Your task to perform on an android device: check storage Image 0: 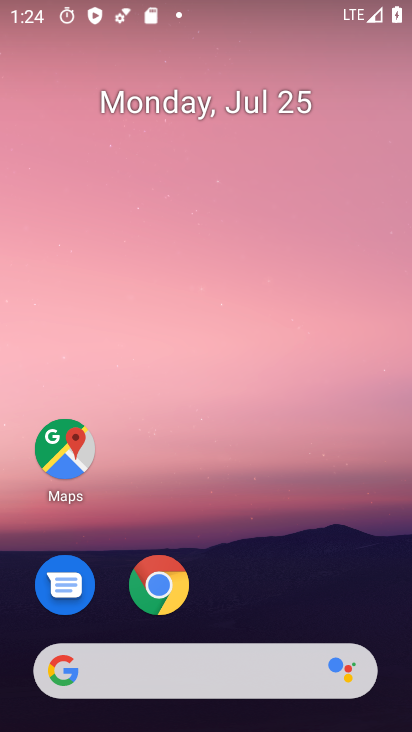
Step 0: drag from (224, 683) to (237, 24)
Your task to perform on an android device: check storage Image 1: 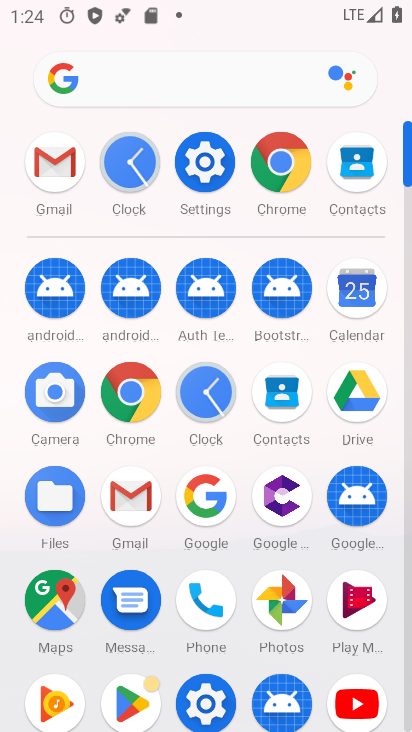
Step 1: click (218, 162)
Your task to perform on an android device: check storage Image 2: 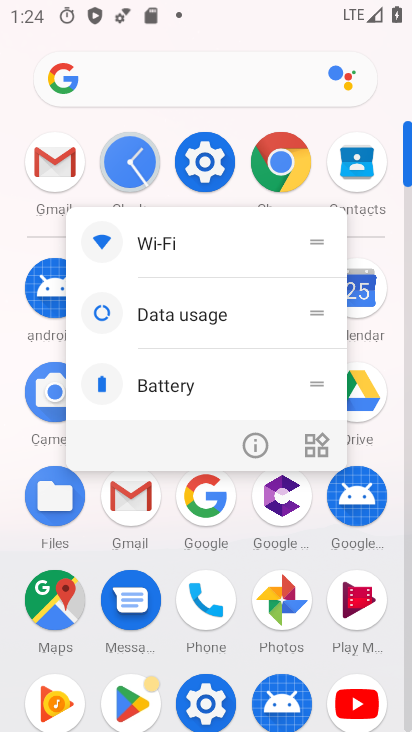
Step 2: click (218, 162)
Your task to perform on an android device: check storage Image 3: 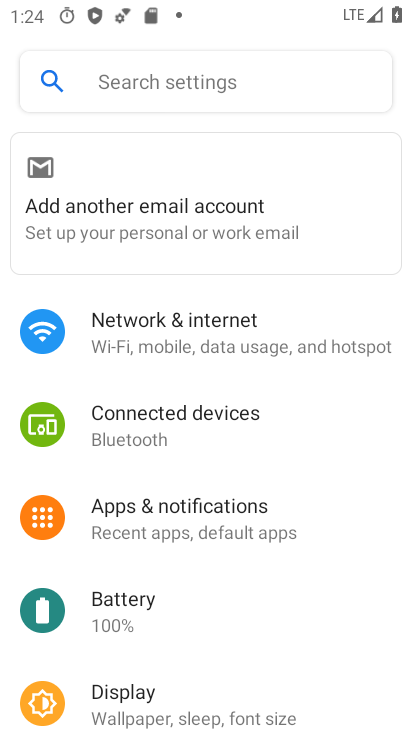
Step 3: drag from (170, 620) to (122, 9)
Your task to perform on an android device: check storage Image 4: 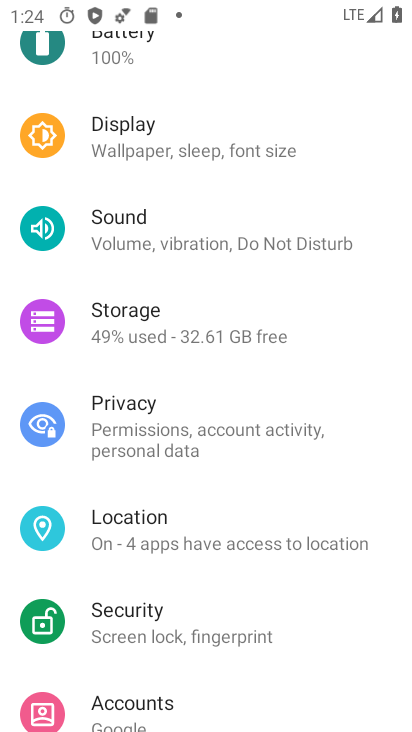
Step 4: click (129, 304)
Your task to perform on an android device: check storage Image 5: 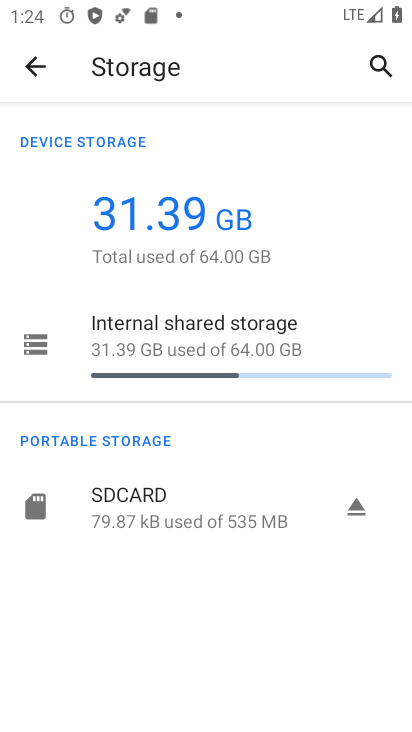
Step 5: task complete